Your task to perform on an android device: delete the emails in spam in the gmail app Image 0: 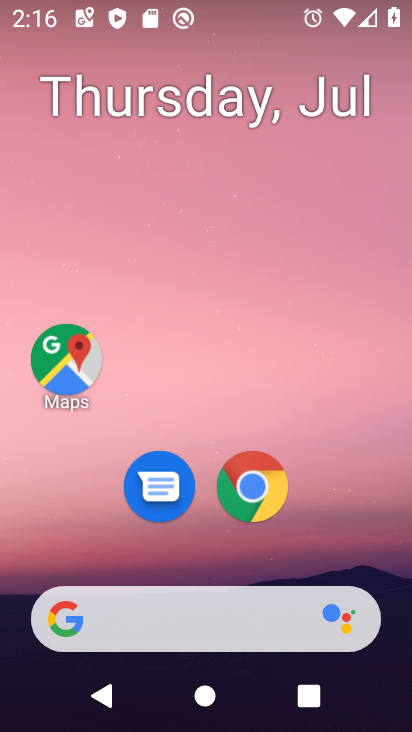
Step 0: drag from (147, 579) to (280, 6)
Your task to perform on an android device: delete the emails in spam in the gmail app Image 1: 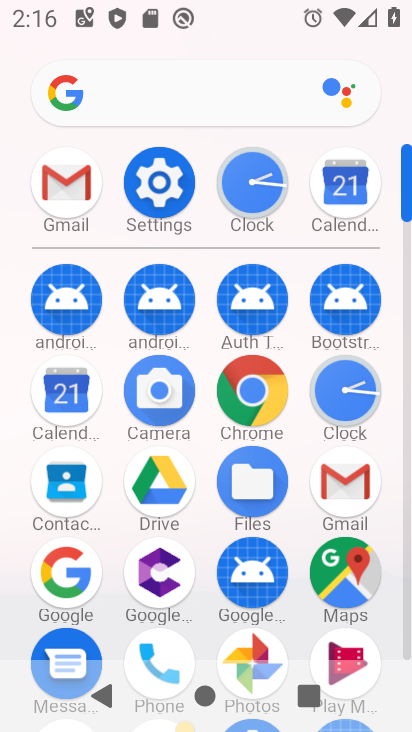
Step 1: click (46, 178)
Your task to perform on an android device: delete the emails in spam in the gmail app Image 2: 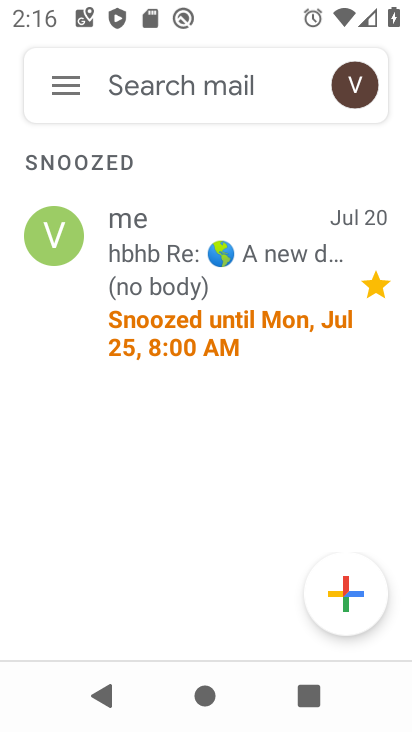
Step 2: click (76, 88)
Your task to perform on an android device: delete the emails in spam in the gmail app Image 3: 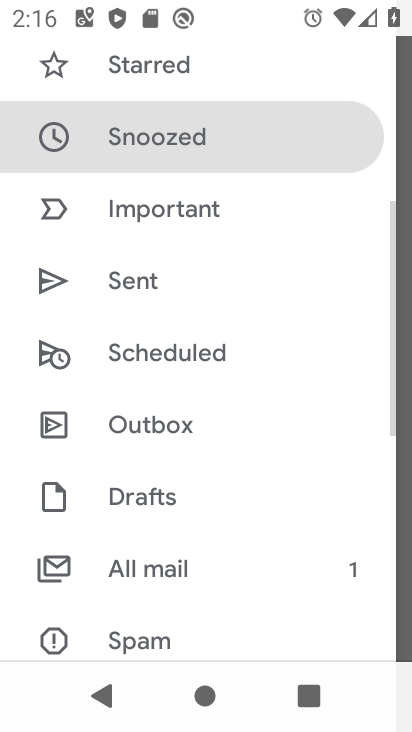
Step 3: click (144, 637)
Your task to perform on an android device: delete the emails in spam in the gmail app Image 4: 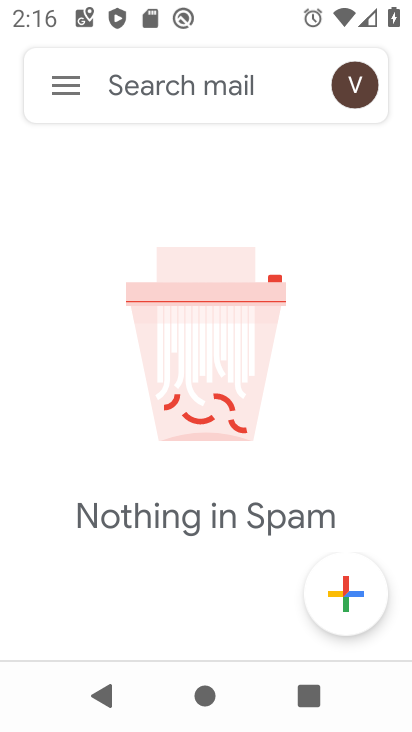
Step 4: task complete